Your task to perform on an android device: turn on wifi Image 0: 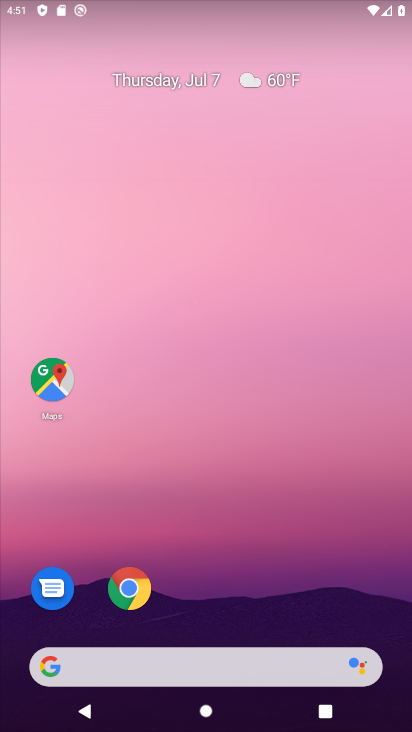
Step 0: drag from (82, 12) to (137, 576)
Your task to perform on an android device: turn on wifi Image 1: 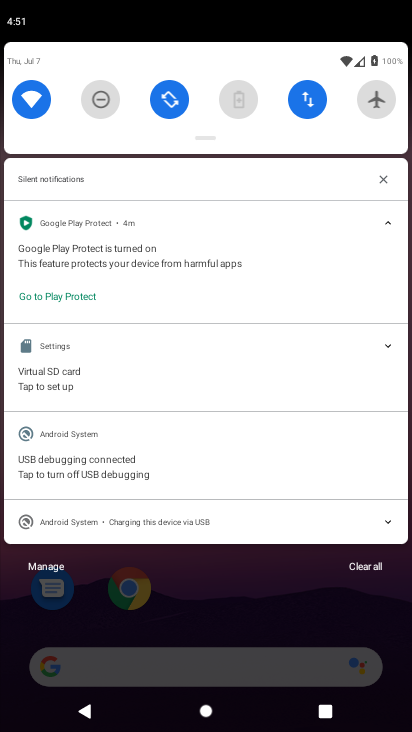
Step 1: task complete